Your task to perform on an android device: turn off smart reply in the gmail app Image 0: 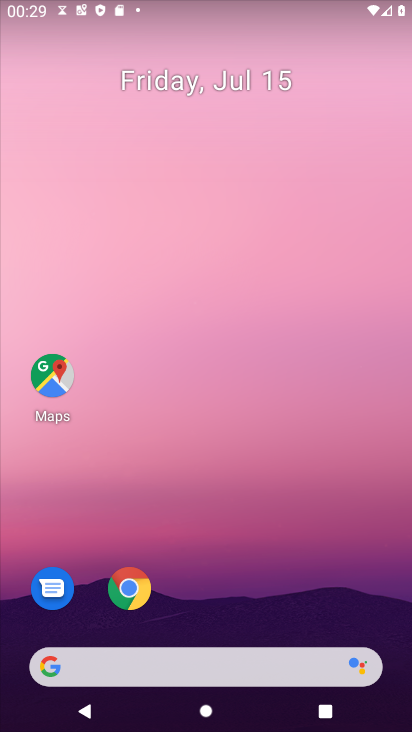
Step 0: drag from (232, 610) to (265, 23)
Your task to perform on an android device: turn off smart reply in the gmail app Image 1: 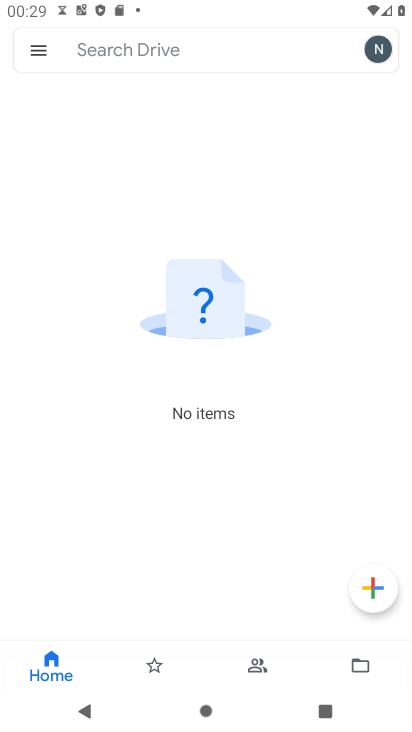
Step 1: press back button
Your task to perform on an android device: turn off smart reply in the gmail app Image 2: 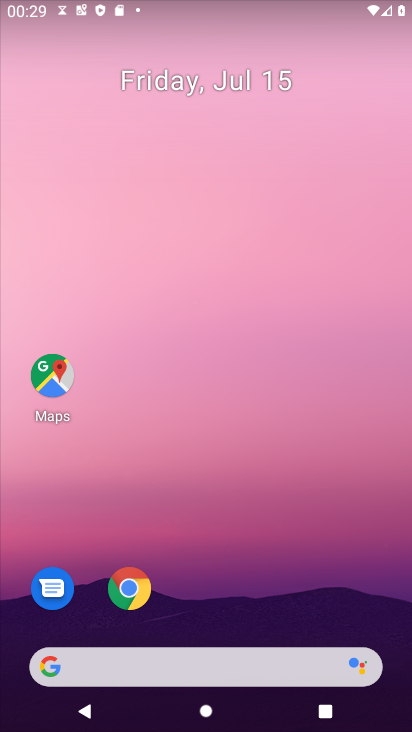
Step 2: drag from (207, 607) to (280, 54)
Your task to perform on an android device: turn off smart reply in the gmail app Image 3: 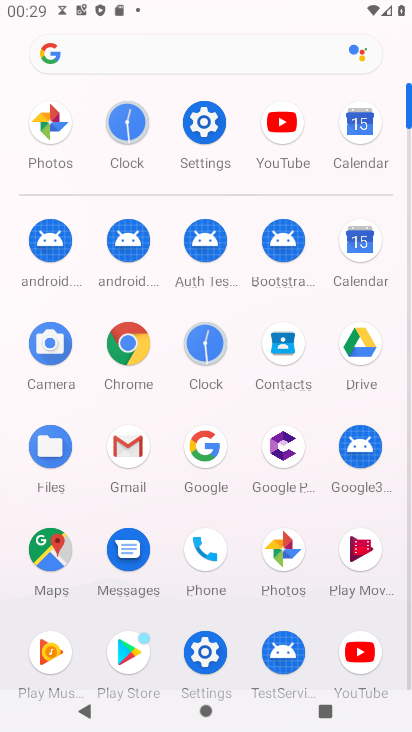
Step 3: click (124, 447)
Your task to perform on an android device: turn off smart reply in the gmail app Image 4: 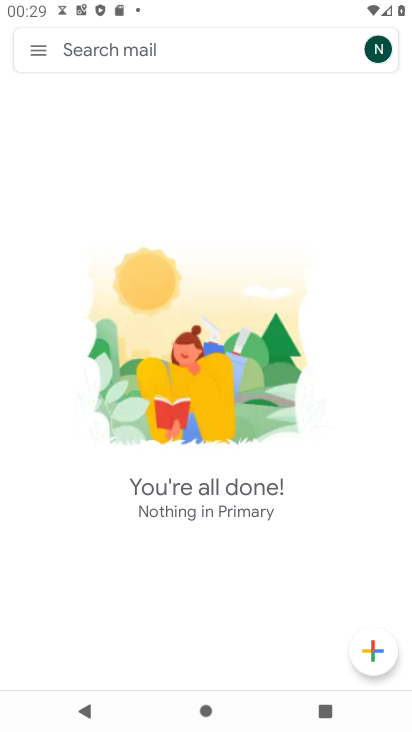
Step 4: click (29, 43)
Your task to perform on an android device: turn off smart reply in the gmail app Image 5: 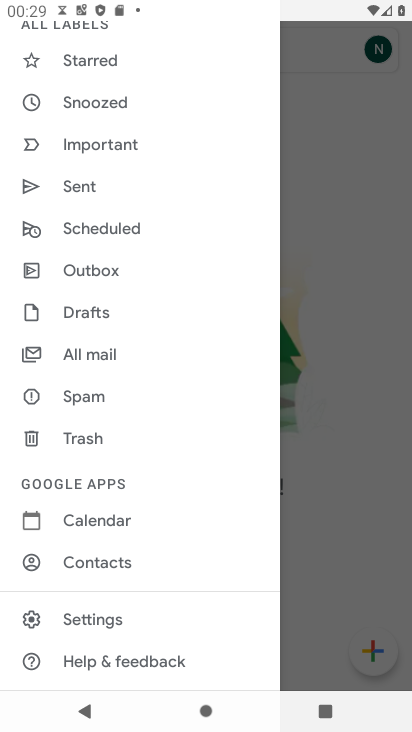
Step 5: click (99, 608)
Your task to perform on an android device: turn off smart reply in the gmail app Image 6: 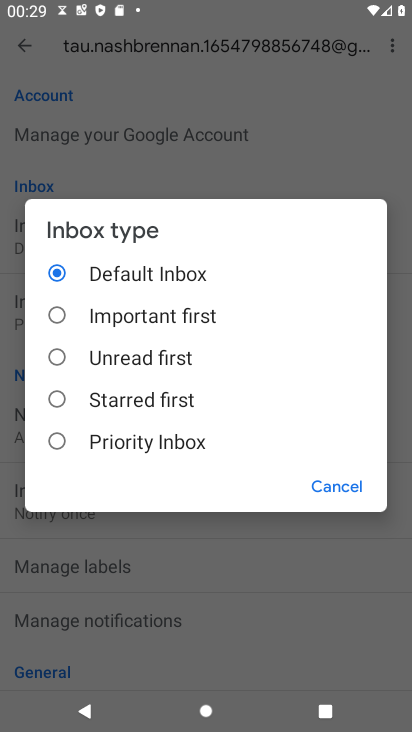
Step 6: click (344, 479)
Your task to perform on an android device: turn off smart reply in the gmail app Image 7: 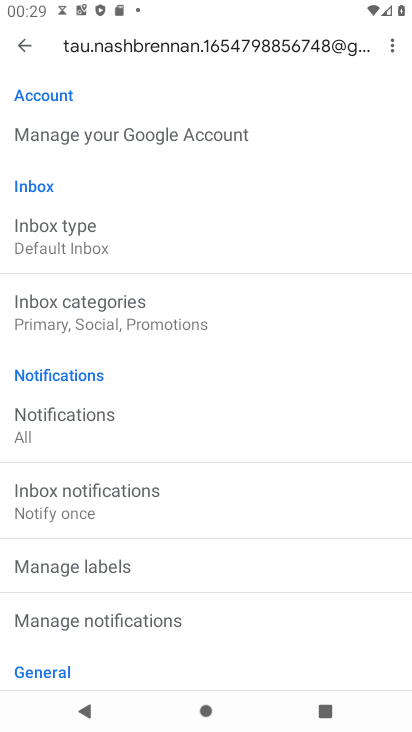
Step 7: drag from (200, 589) to (261, 12)
Your task to perform on an android device: turn off smart reply in the gmail app Image 8: 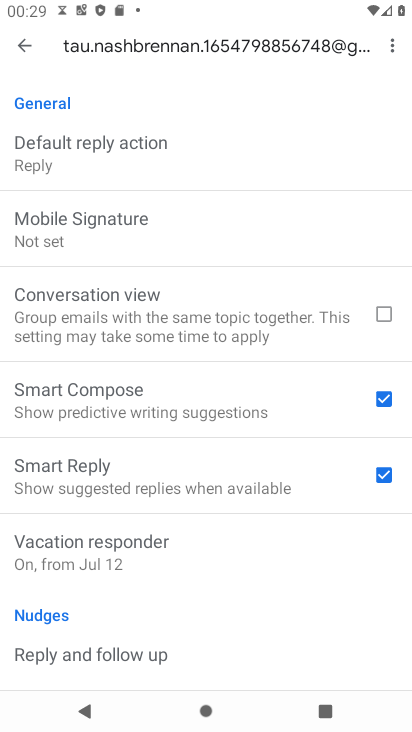
Step 8: click (376, 469)
Your task to perform on an android device: turn off smart reply in the gmail app Image 9: 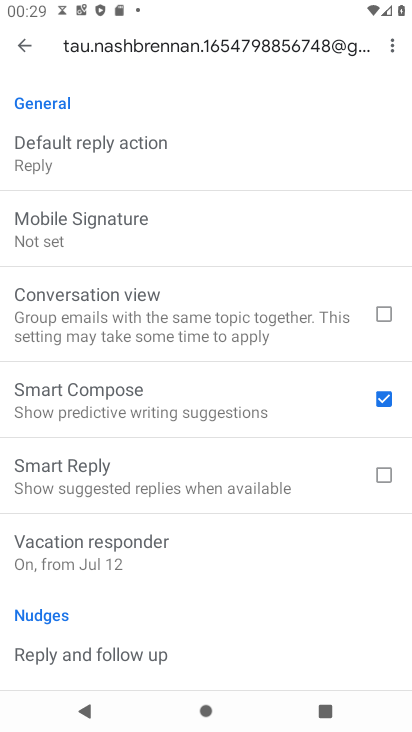
Step 9: task complete